Your task to perform on an android device: Open the web browser Image 0: 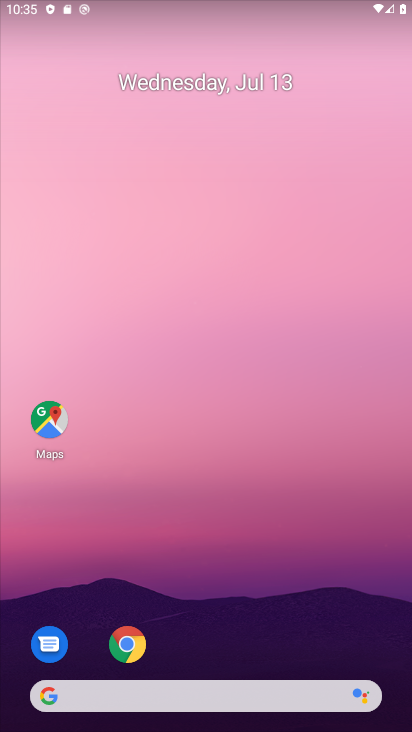
Step 0: click (132, 644)
Your task to perform on an android device: Open the web browser Image 1: 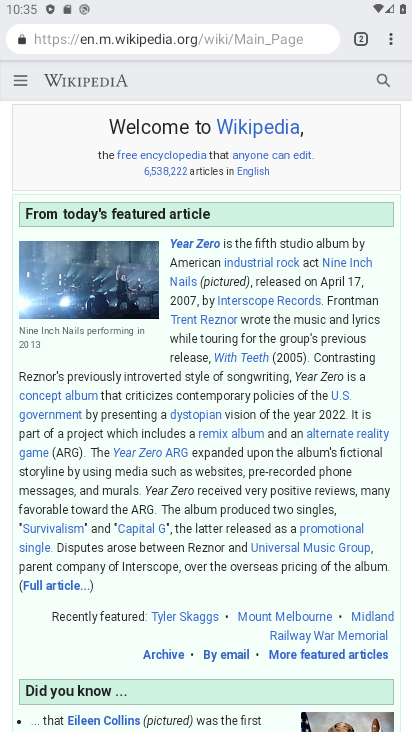
Step 1: click (389, 41)
Your task to perform on an android device: Open the web browser Image 2: 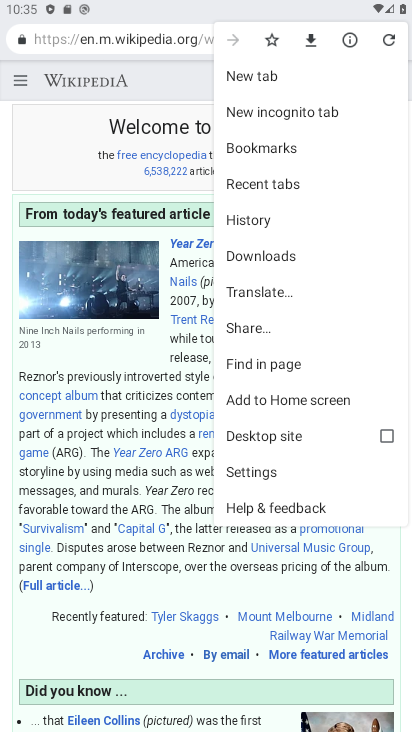
Step 2: click (235, 76)
Your task to perform on an android device: Open the web browser Image 3: 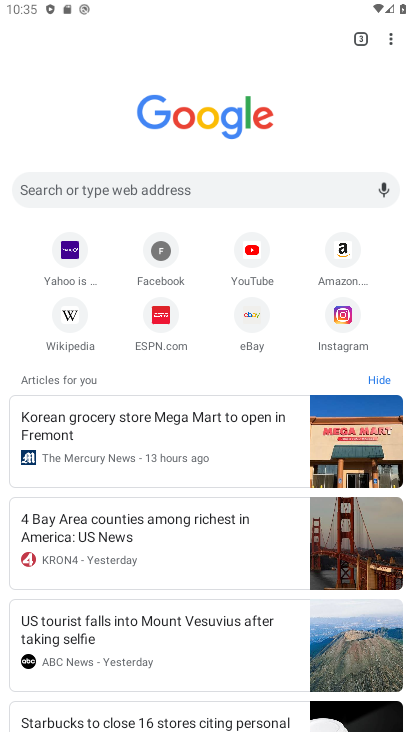
Step 3: task complete